Your task to perform on an android device: move an email to a new category in the gmail app Image 0: 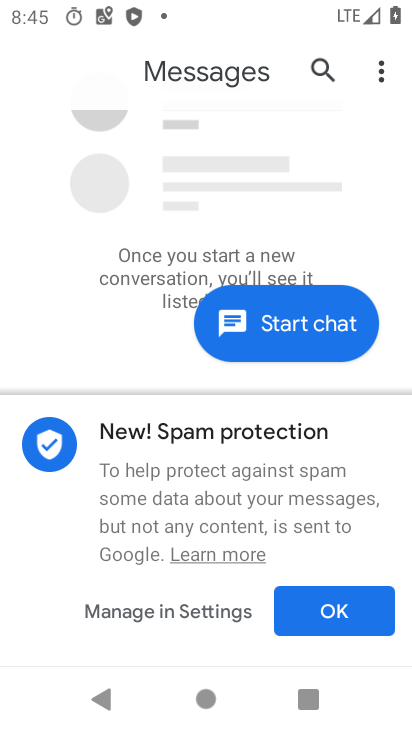
Step 0: press home button
Your task to perform on an android device: move an email to a new category in the gmail app Image 1: 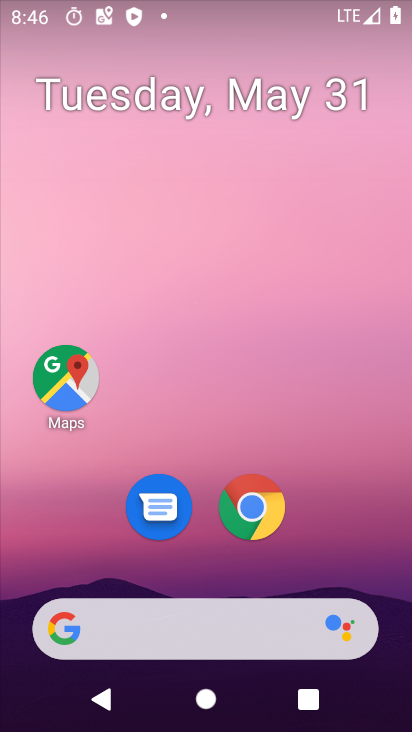
Step 1: drag from (10, 606) to (261, 149)
Your task to perform on an android device: move an email to a new category in the gmail app Image 2: 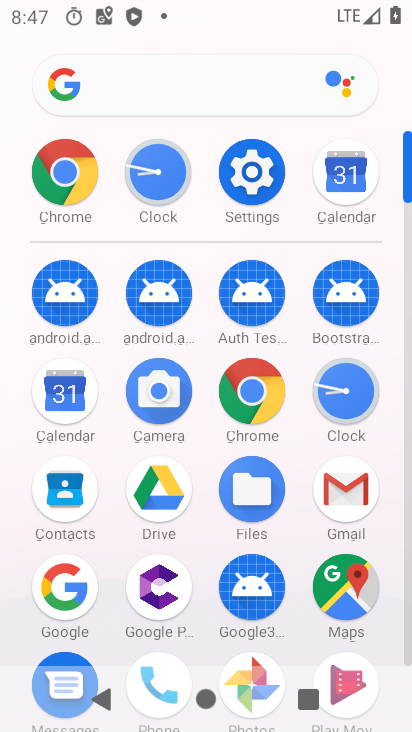
Step 2: click (336, 496)
Your task to perform on an android device: move an email to a new category in the gmail app Image 3: 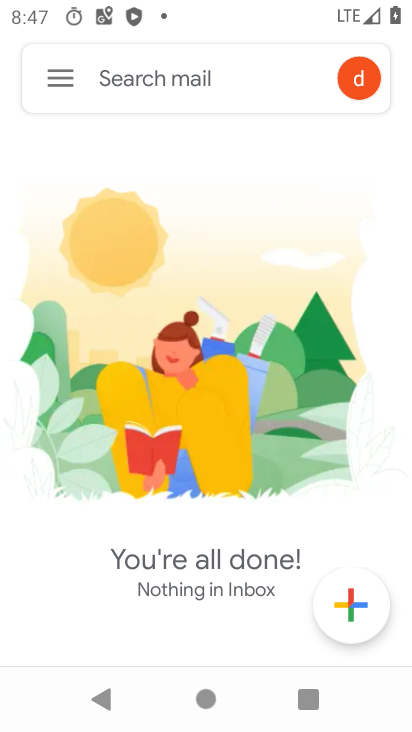
Step 3: click (65, 90)
Your task to perform on an android device: move an email to a new category in the gmail app Image 4: 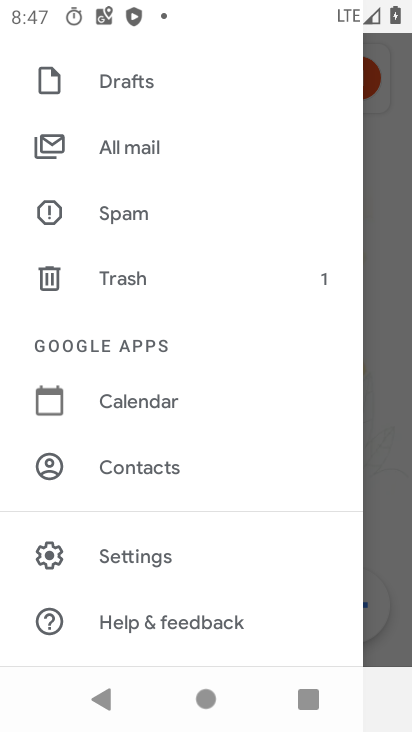
Step 4: click (64, 565)
Your task to perform on an android device: move an email to a new category in the gmail app Image 5: 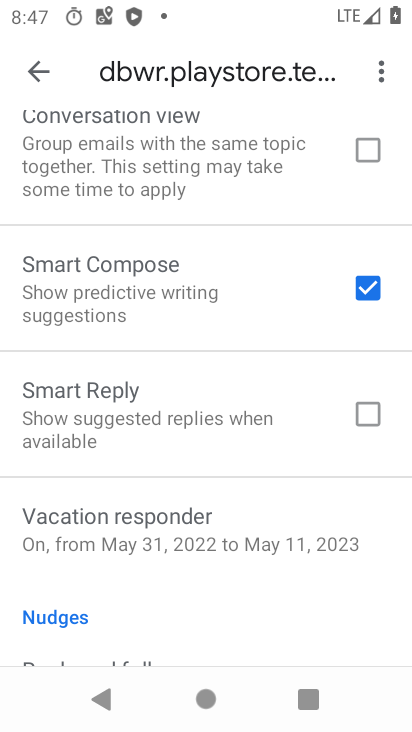
Step 5: task complete